Your task to perform on an android device: turn on the 24-hour format for clock Image 0: 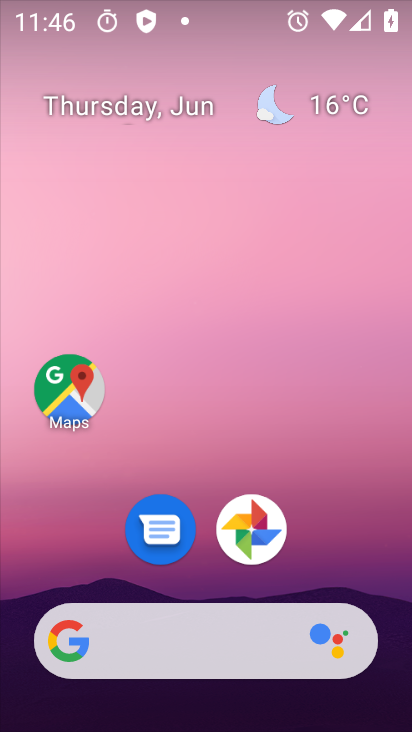
Step 0: drag from (234, 689) to (148, 99)
Your task to perform on an android device: turn on the 24-hour format for clock Image 1: 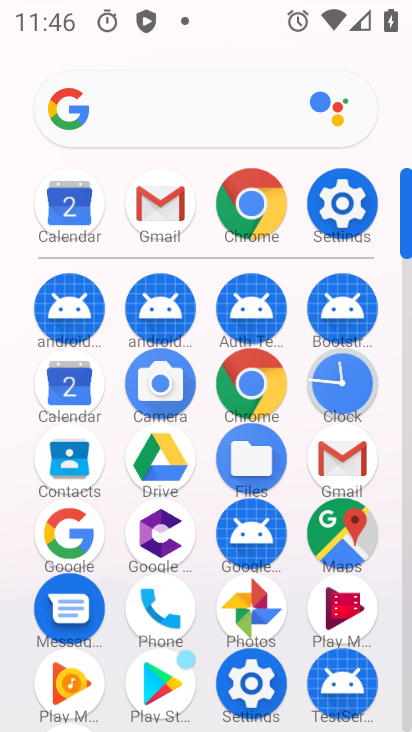
Step 1: click (342, 379)
Your task to perform on an android device: turn on the 24-hour format for clock Image 2: 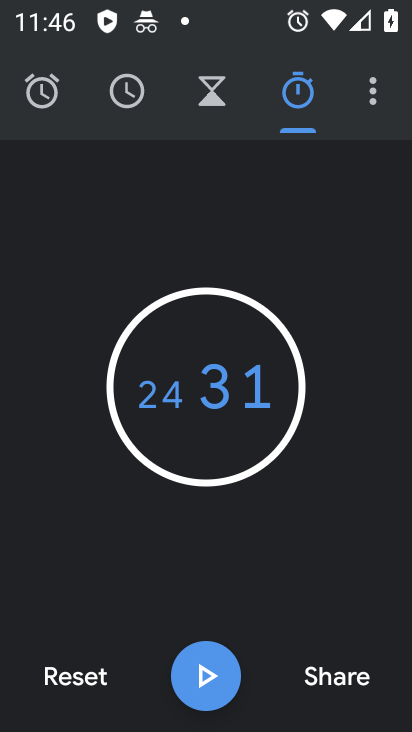
Step 2: click (372, 108)
Your task to perform on an android device: turn on the 24-hour format for clock Image 3: 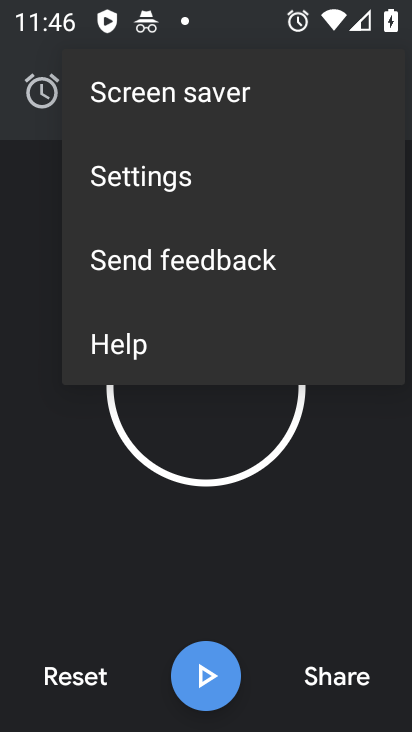
Step 3: click (158, 180)
Your task to perform on an android device: turn on the 24-hour format for clock Image 4: 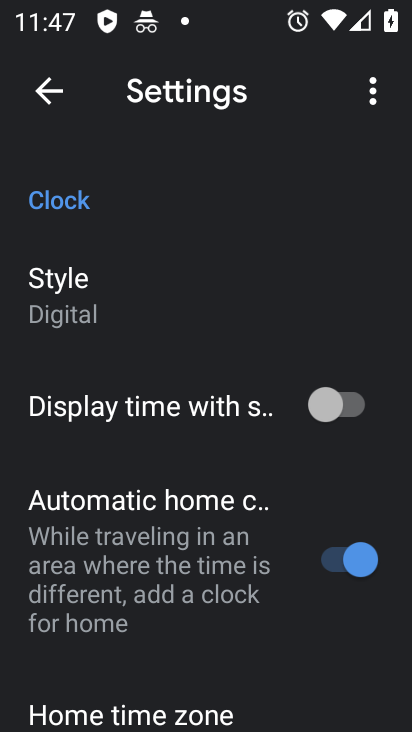
Step 4: drag from (205, 462) to (188, 135)
Your task to perform on an android device: turn on the 24-hour format for clock Image 5: 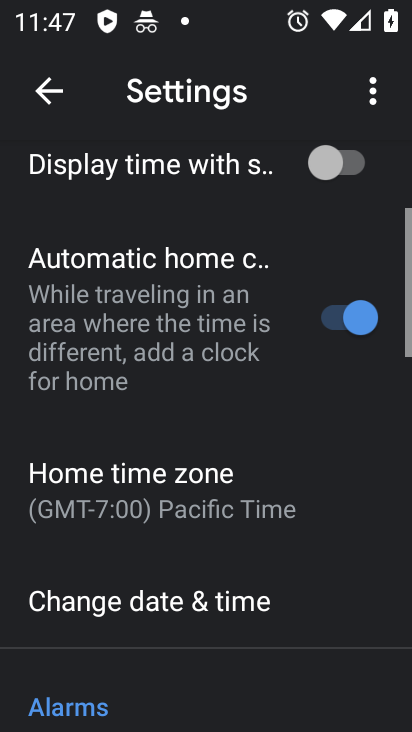
Step 5: drag from (252, 495) to (223, 114)
Your task to perform on an android device: turn on the 24-hour format for clock Image 6: 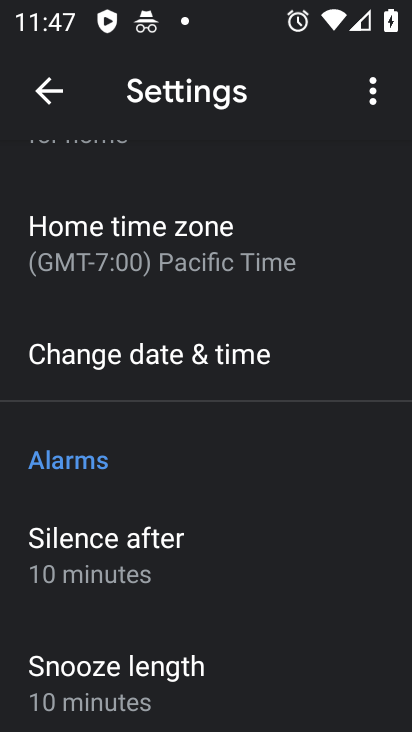
Step 6: click (161, 356)
Your task to perform on an android device: turn on the 24-hour format for clock Image 7: 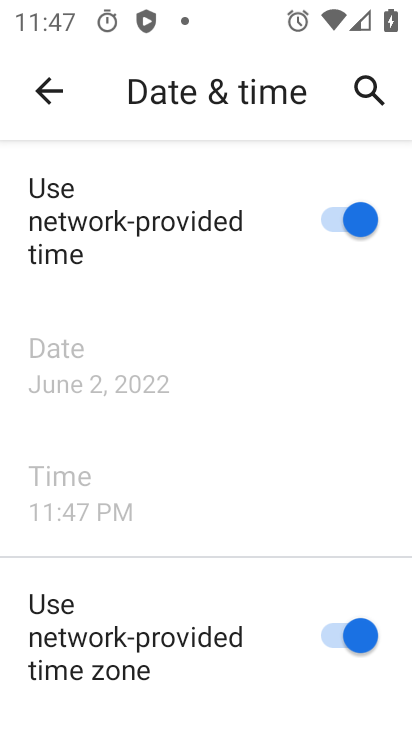
Step 7: drag from (239, 548) to (243, 269)
Your task to perform on an android device: turn on the 24-hour format for clock Image 8: 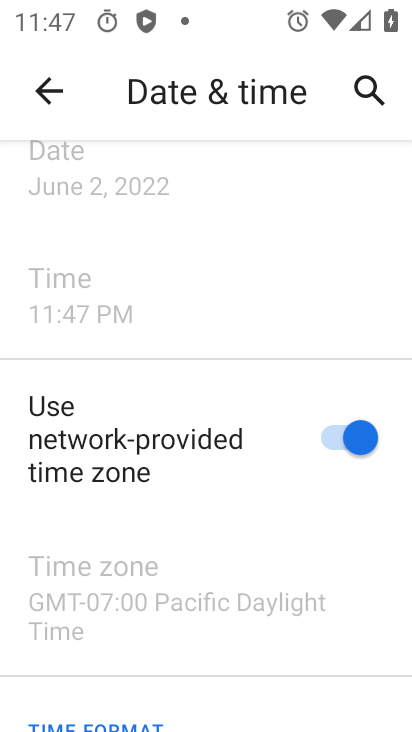
Step 8: drag from (293, 594) to (180, 282)
Your task to perform on an android device: turn on the 24-hour format for clock Image 9: 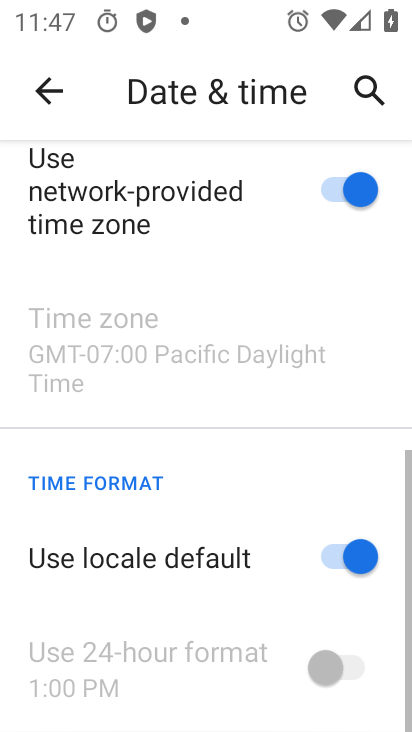
Step 9: drag from (221, 558) to (154, 172)
Your task to perform on an android device: turn on the 24-hour format for clock Image 10: 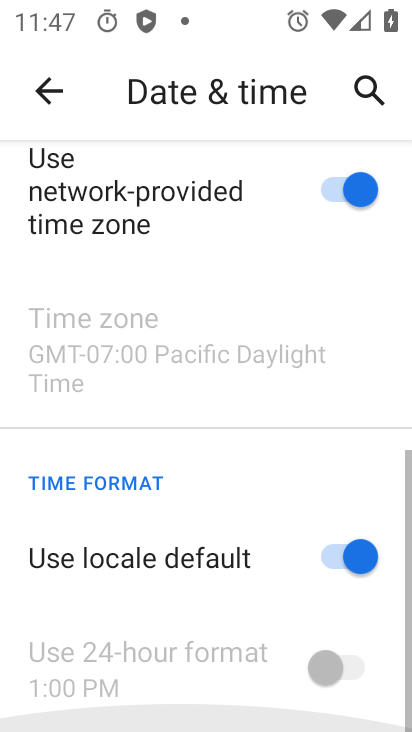
Step 10: drag from (208, 520) to (140, 163)
Your task to perform on an android device: turn on the 24-hour format for clock Image 11: 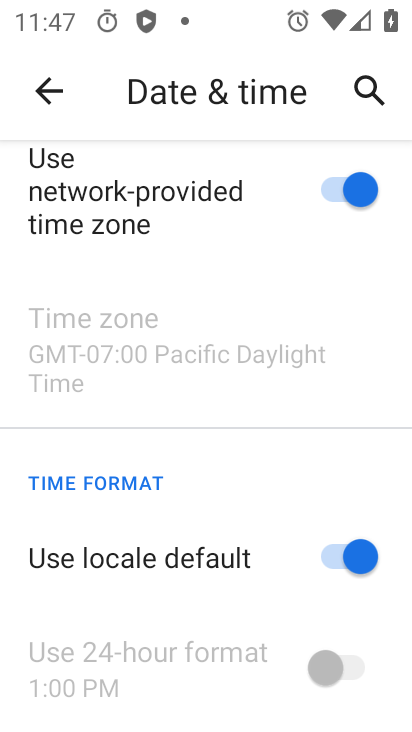
Step 11: click (361, 550)
Your task to perform on an android device: turn on the 24-hour format for clock Image 12: 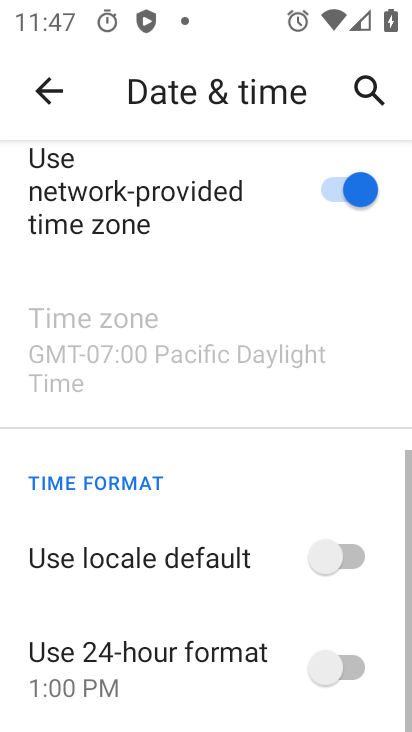
Step 12: click (329, 664)
Your task to perform on an android device: turn on the 24-hour format for clock Image 13: 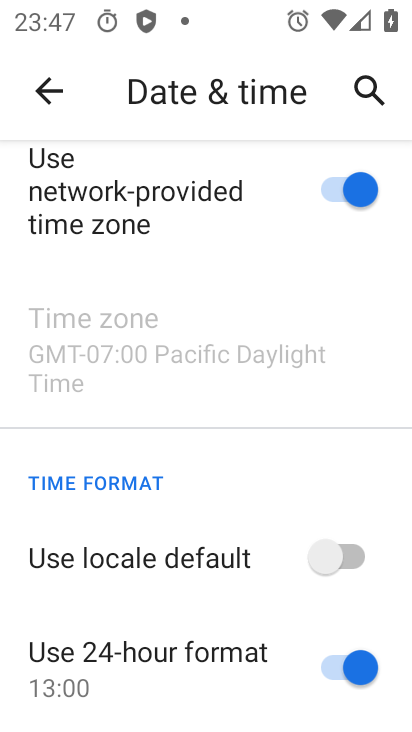
Step 13: task complete